Your task to perform on an android device: change notification settings in the gmail app Image 0: 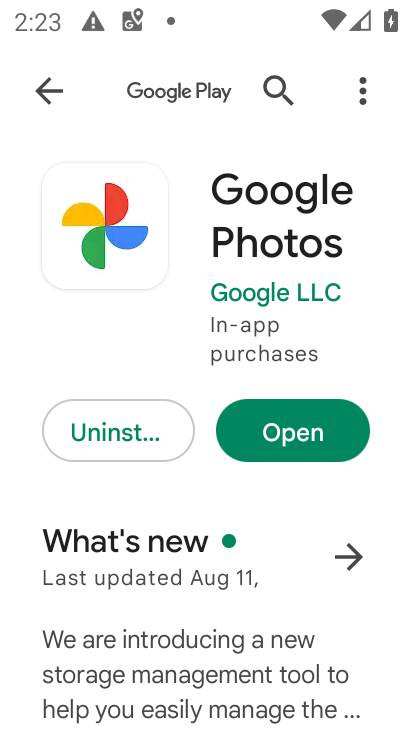
Step 0: type ""
Your task to perform on an android device: change notification settings in the gmail app Image 1: 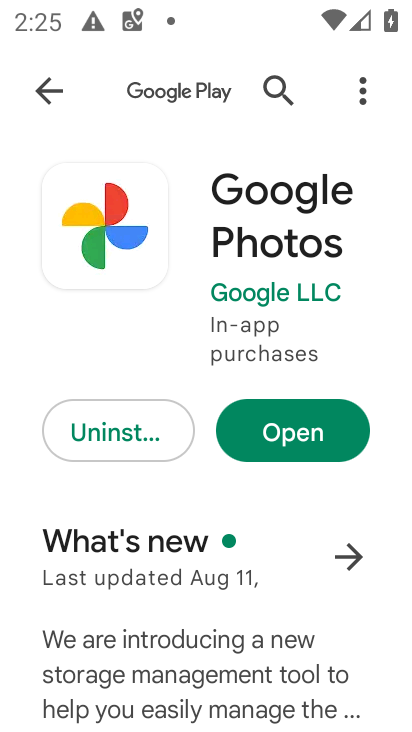
Step 1: task complete